Your task to perform on an android device: change the clock display to digital Image 0: 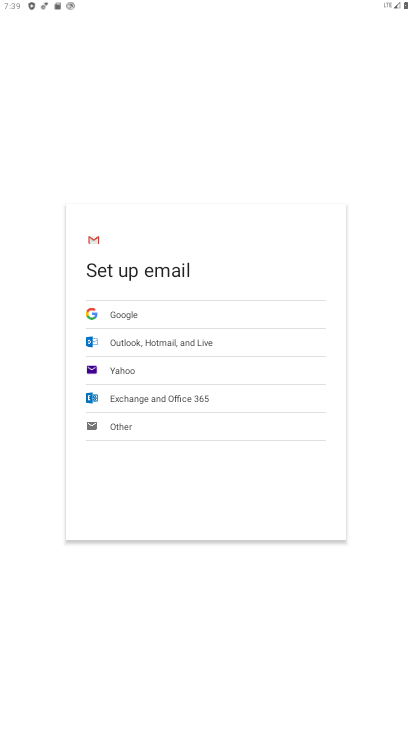
Step 0: press home button
Your task to perform on an android device: change the clock display to digital Image 1: 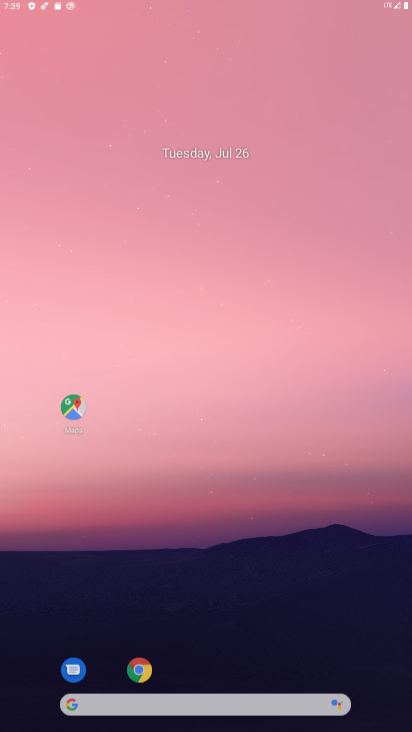
Step 1: drag from (351, 700) to (229, 25)
Your task to perform on an android device: change the clock display to digital Image 2: 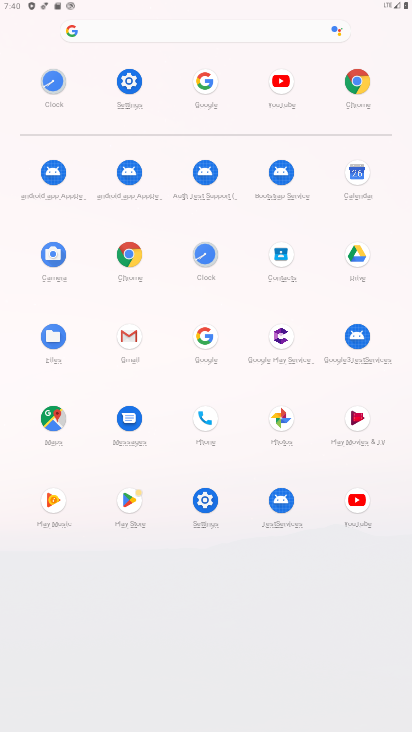
Step 2: click (195, 254)
Your task to perform on an android device: change the clock display to digital Image 3: 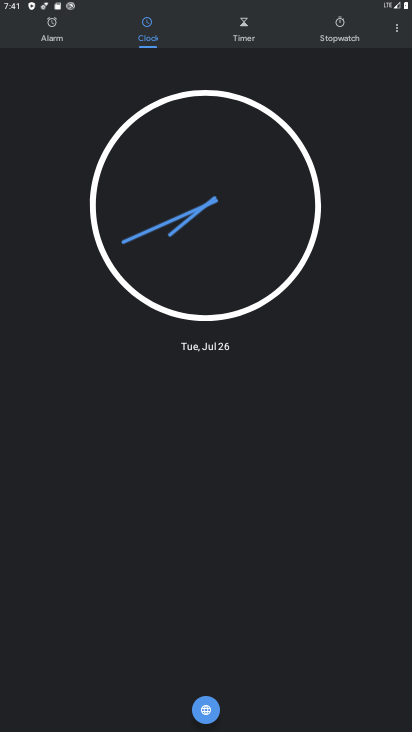
Step 3: click (392, 24)
Your task to perform on an android device: change the clock display to digital Image 4: 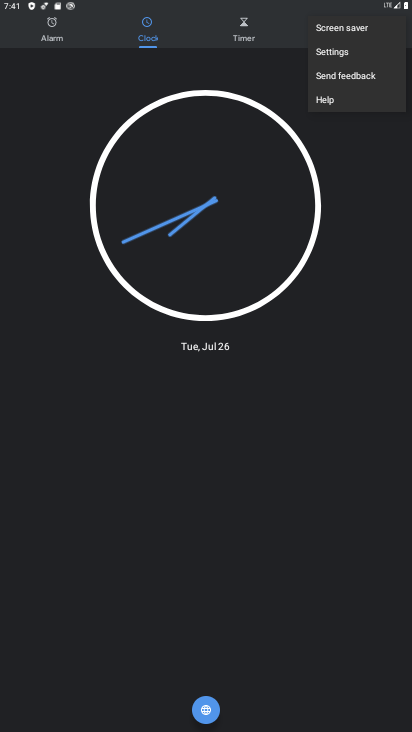
Step 4: click (345, 61)
Your task to perform on an android device: change the clock display to digital Image 5: 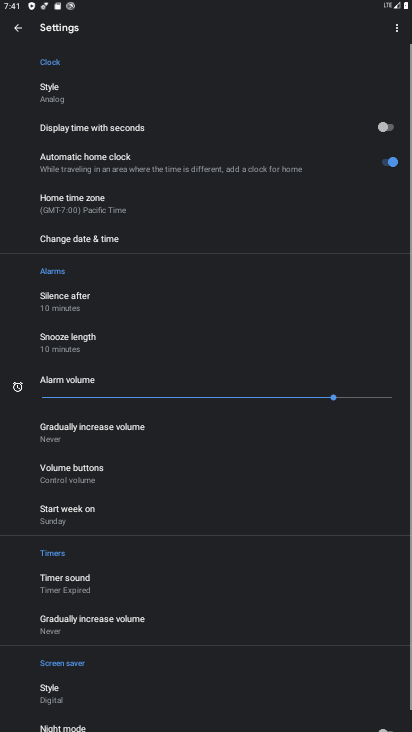
Step 5: click (60, 95)
Your task to perform on an android device: change the clock display to digital Image 6: 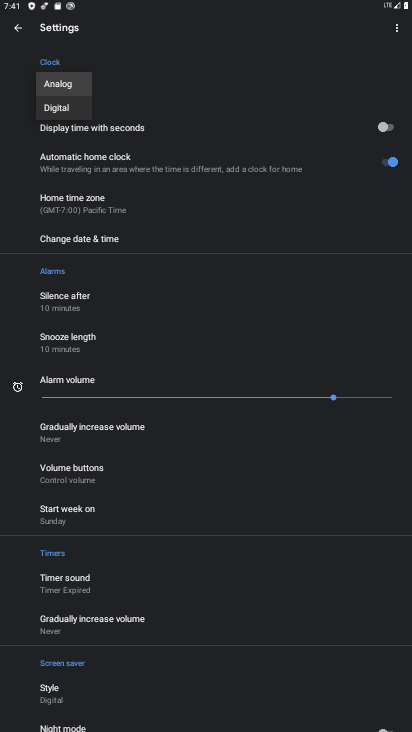
Step 6: click (56, 111)
Your task to perform on an android device: change the clock display to digital Image 7: 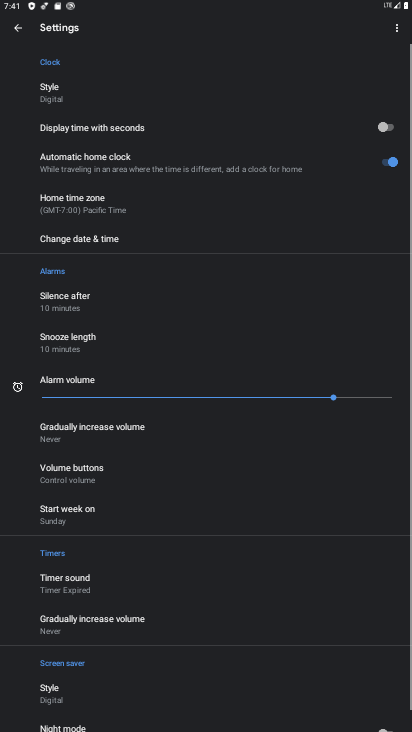
Step 7: task complete